Your task to perform on an android device: clear all cookies in the chrome app Image 0: 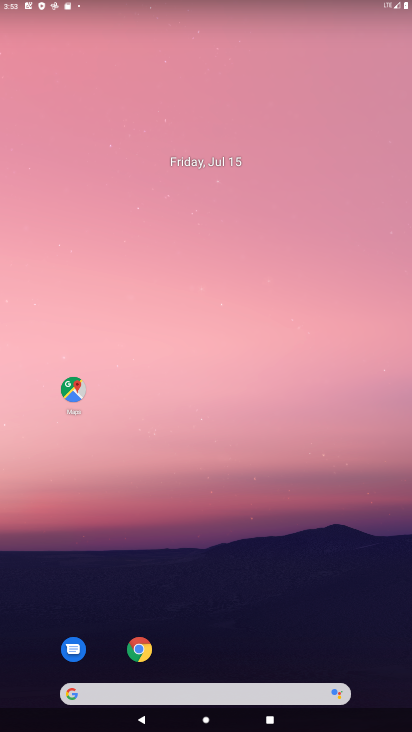
Step 0: drag from (325, 610) to (267, 177)
Your task to perform on an android device: clear all cookies in the chrome app Image 1: 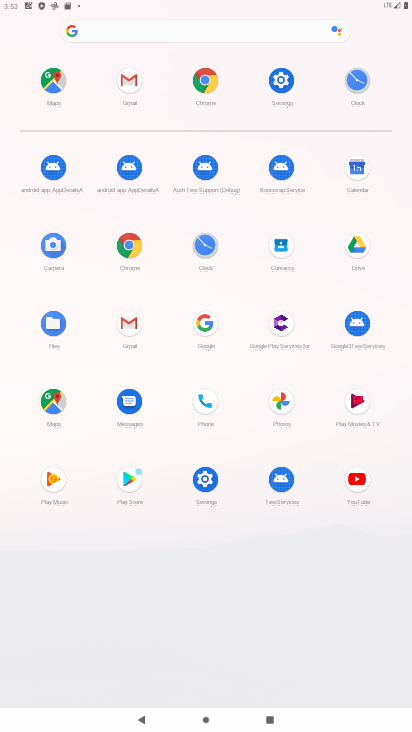
Step 1: click (205, 80)
Your task to perform on an android device: clear all cookies in the chrome app Image 2: 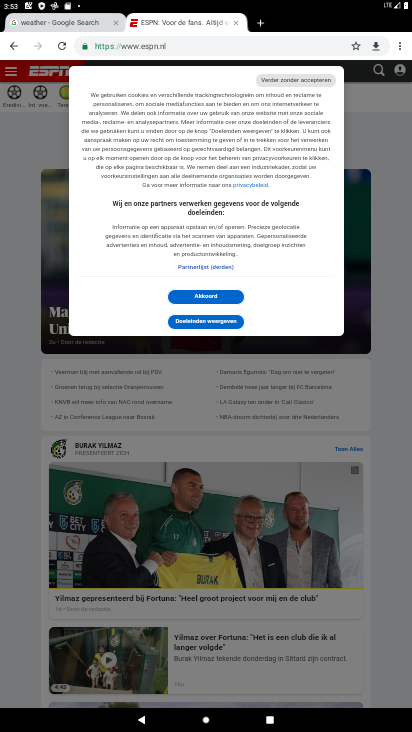
Step 2: drag from (402, 41) to (305, 145)
Your task to perform on an android device: clear all cookies in the chrome app Image 3: 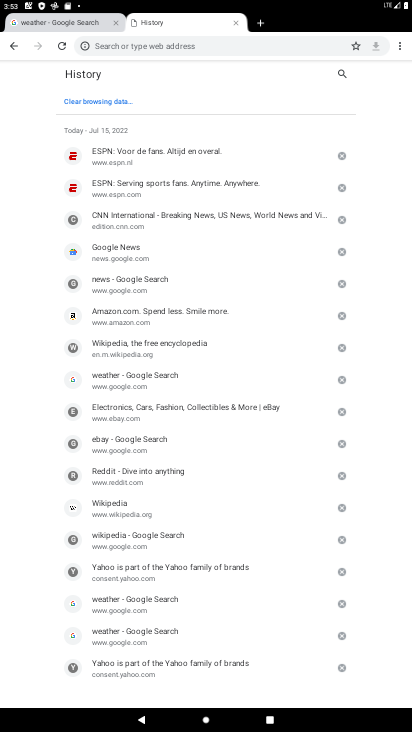
Step 3: click (99, 101)
Your task to perform on an android device: clear all cookies in the chrome app Image 4: 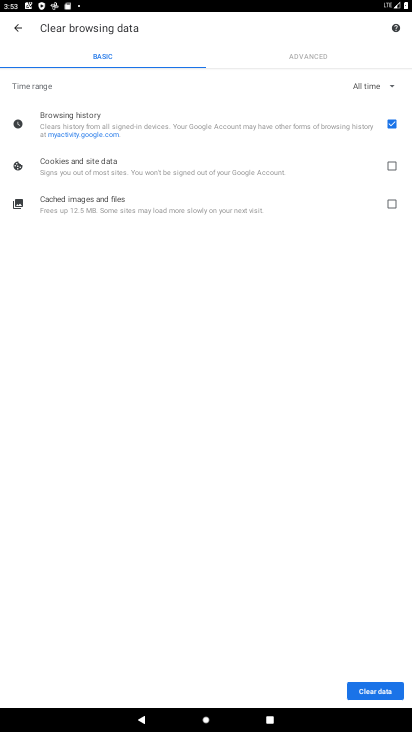
Step 4: click (388, 163)
Your task to perform on an android device: clear all cookies in the chrome app Image 5: 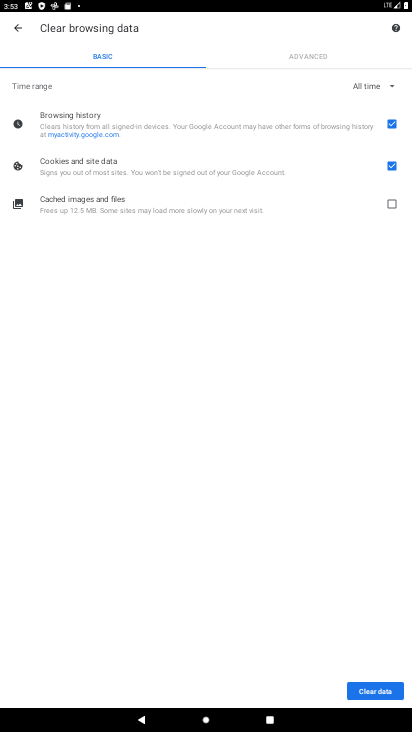
Step 5: click (391, 196)
Your task to perform on an android device: clear all cookies in the chrome app Image 6: 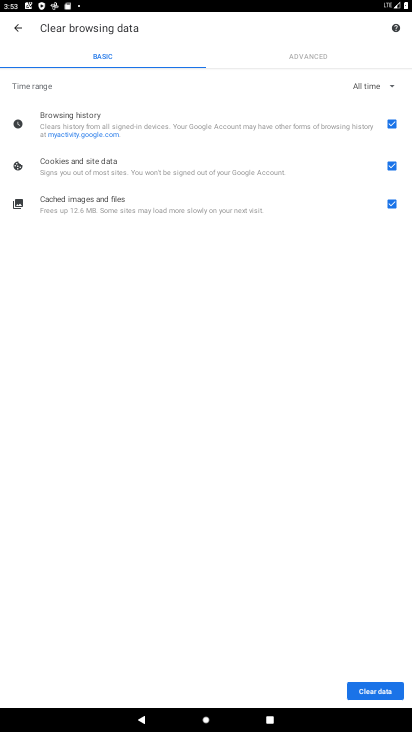
Step 6: click (385, 691)
Your task to perform on an android device: clear all cookies in the chrome app Image 7: 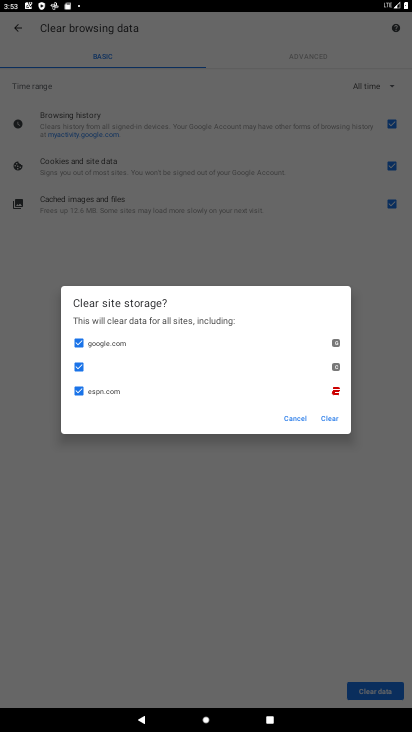
Step 7: click (331, 423)
Your task to perform on an android device: clear all cookies in the chrome app Image 8: 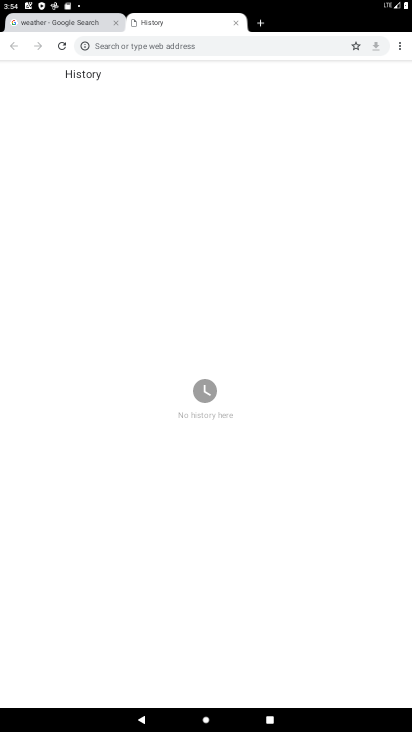
Step 8: task complete